Your task to perform on an android device: What's the weather going to be tomorrow? Image 0: 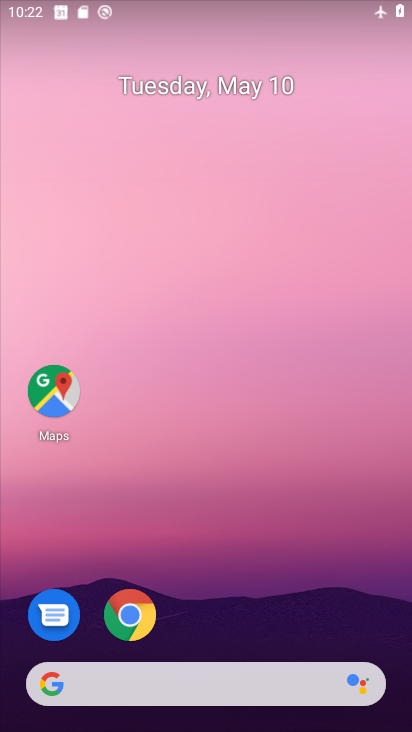
Step 0: drag from (223, 625) to (238, 225)
Your task to perform on an android device: What's the weather going to be tomorrow? Image 1: 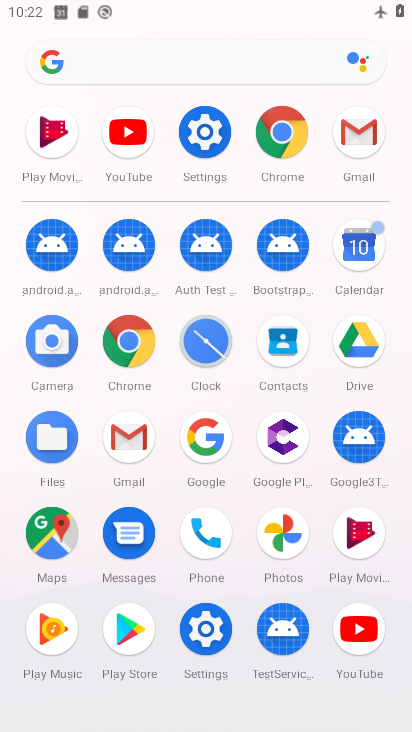
Step 1: click (210, 63)
Your task to perform on an android device: What's the weather going to be tomorrow? Image 2: 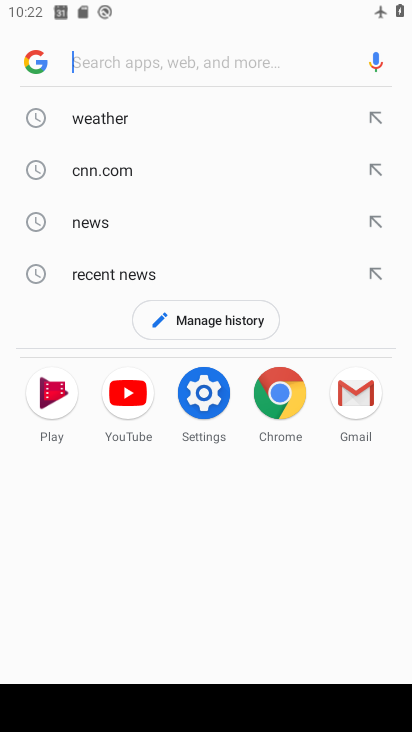
Step 2: type "weather tomorrow"
Your task to perform on an android device: What's the weather going to be tomorrow? Image 3: 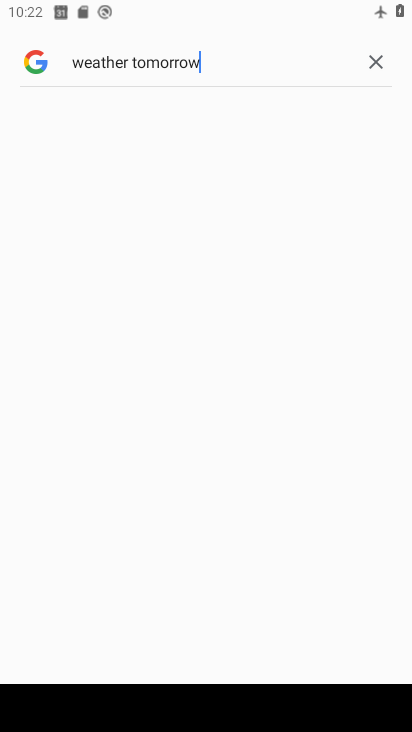
Step 3: click (368, 204)
Your task to perform on an android device: What's the weather going to be tomorrow? Image 4: 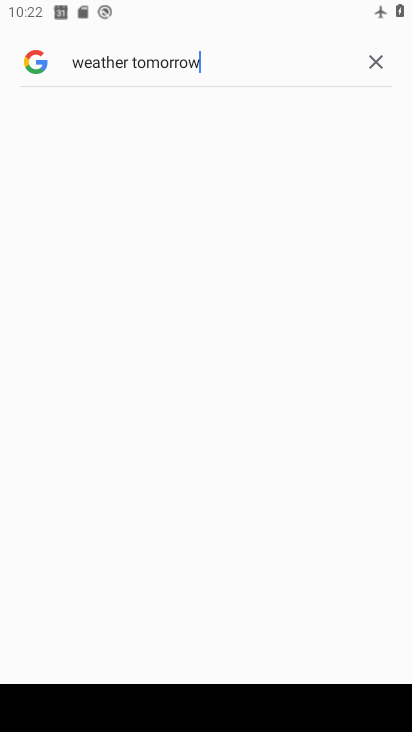
Step 4: task complete